Your task to perform on an android device: see creations saved in the google photos Image 0: 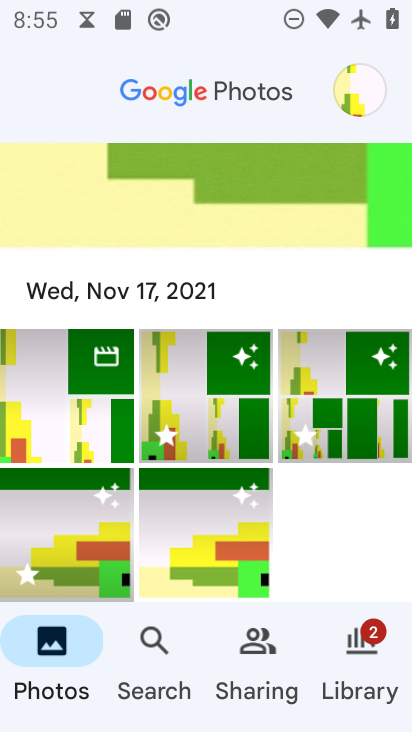
Step 0: press home button
Your task to perform on an android device: see creations saved in the google photos Image 1: 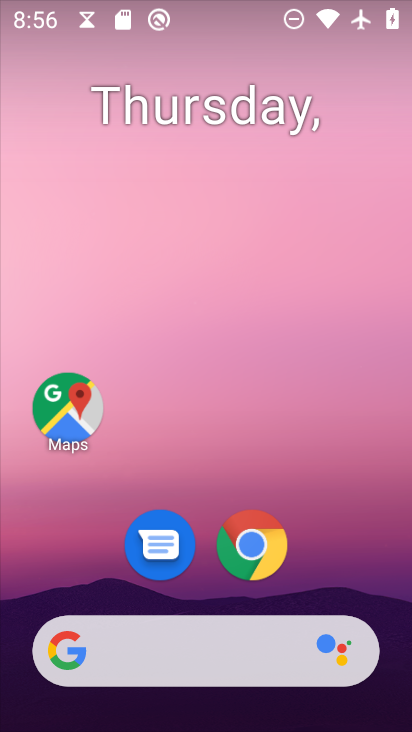
Step 1: drag from (341, 562) to (203, 95)
Your task to perform on an android device: see creations saved in the google photos Image 2: 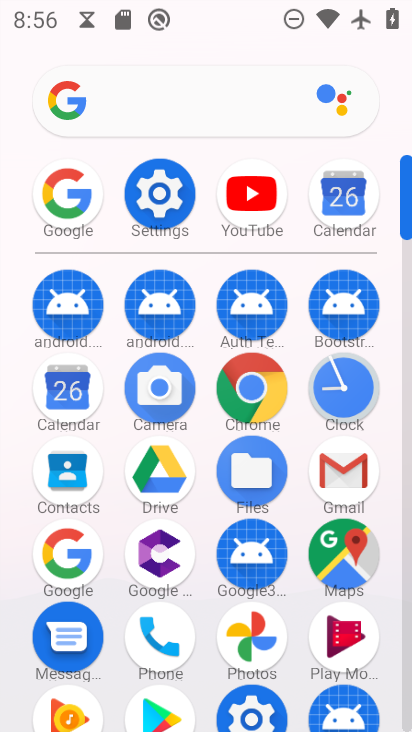
Step 2: drag from (201, 611) to (191, 399)
Your task to perform on an android device: see creations saved in the google photos Image 3: 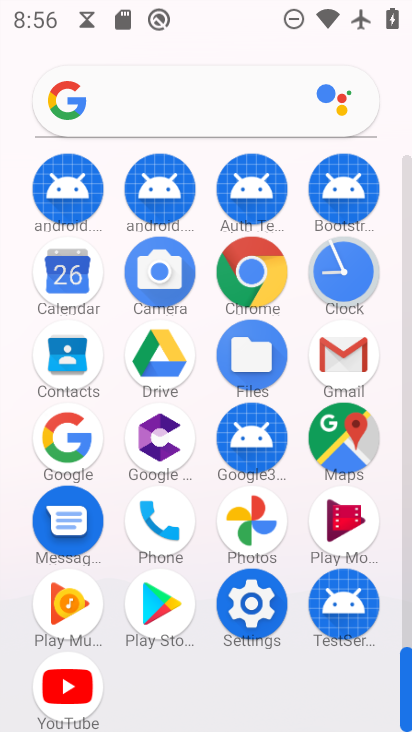
Step 3: click (252, 520)
Your task to perform on an android device: see creations saved in the google photos Image 4: 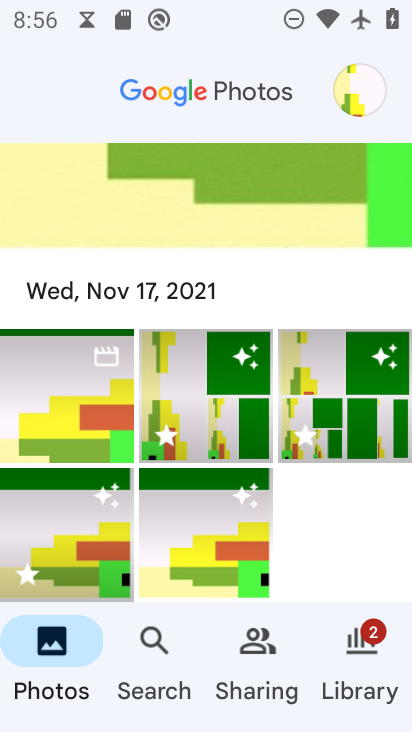
Step 4: click (364, 644)
Your task to perform on an android device: see creations saved in the google photos Image 5: 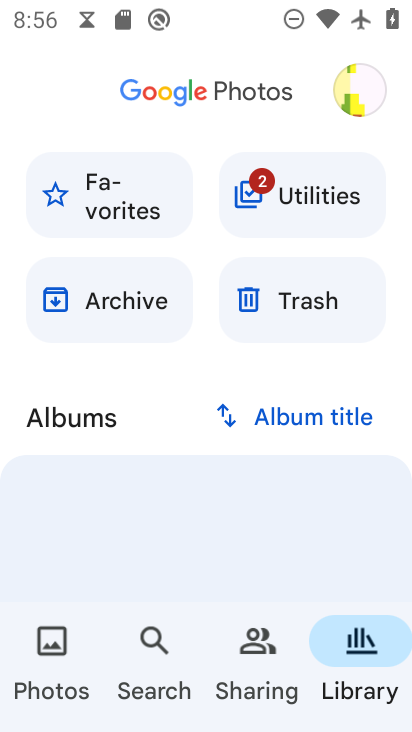
Step 5: click (300, 193)
Your task to perform on an android device: see creations saved in the google photos Image 6: 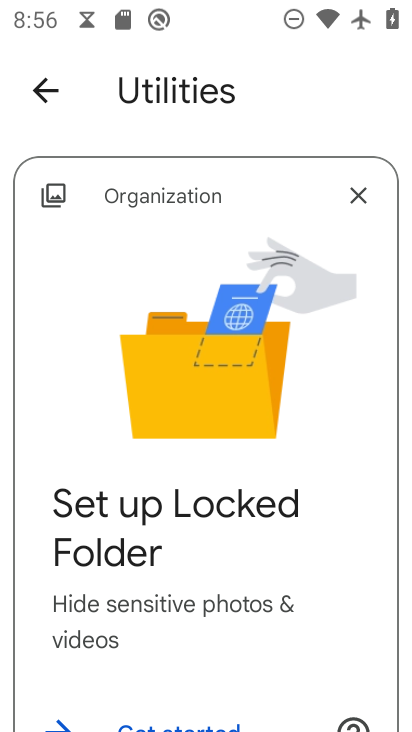
Step 6: drag from (243, 535) to (249, 369)
Your task to perform on an android device: see creations saved in the google photos Image 7: 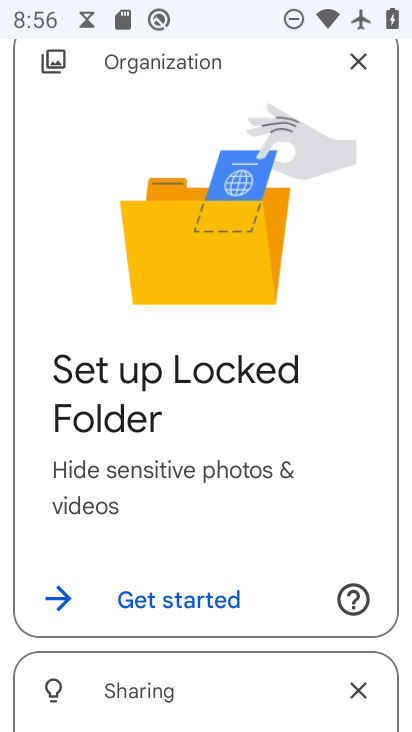
Step 7: drag from (225, 677) to (256, 546)
Your task to perform on an android device: see creations saved in the google photos Image 8: 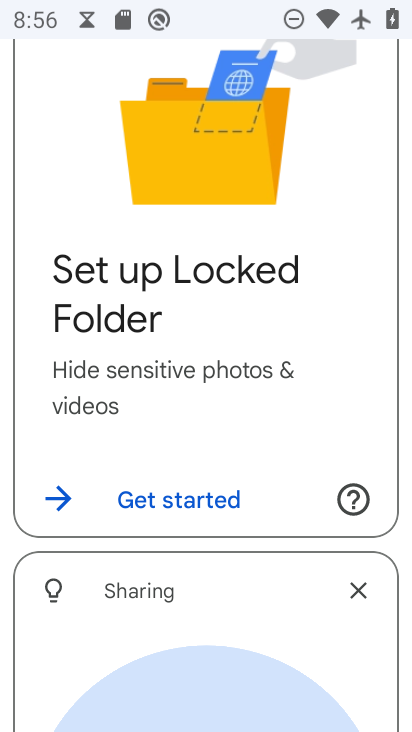
Step 8: drag from (188, 685) to (240, 527)
Your task to perform on an android device: see creations saved in the google photos Image 9: 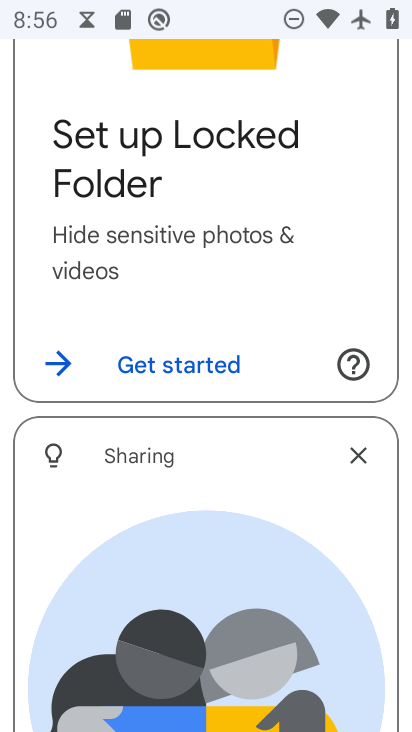
Step 9: drag from (200, 658) to (251, 501)
Your task to perform on an android device: see creations saved in the google photos Image 10: 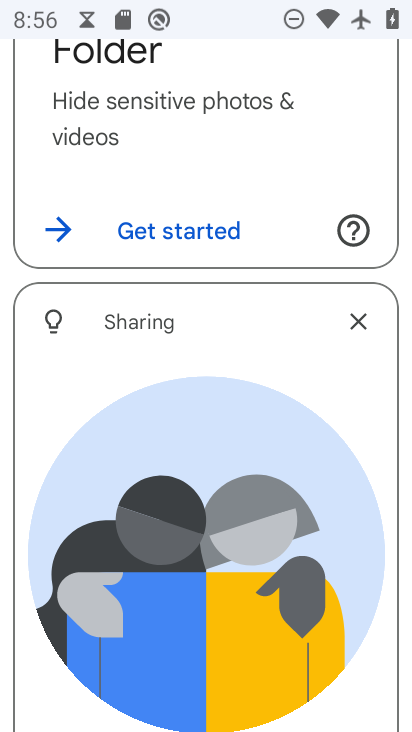
Step 10: drag from (195, 681) to (272, 519)
Your task to perform on an android device: see creations saved in the google photos Image 11: 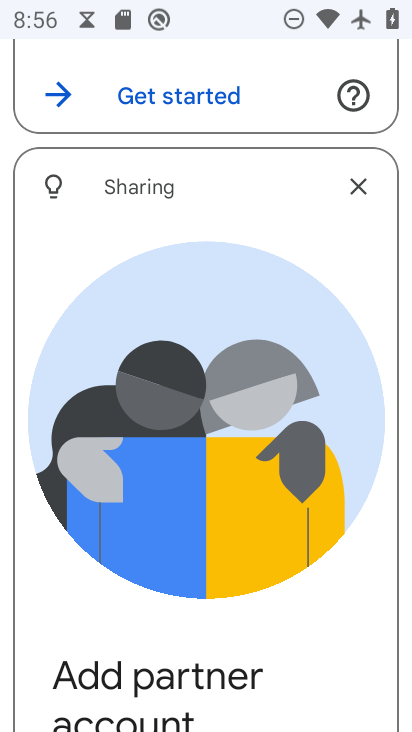
Step 11: drag from (240, 659) to (286, 508)
Your task to perform on an android device: see creations saved in the google photos Image 12: 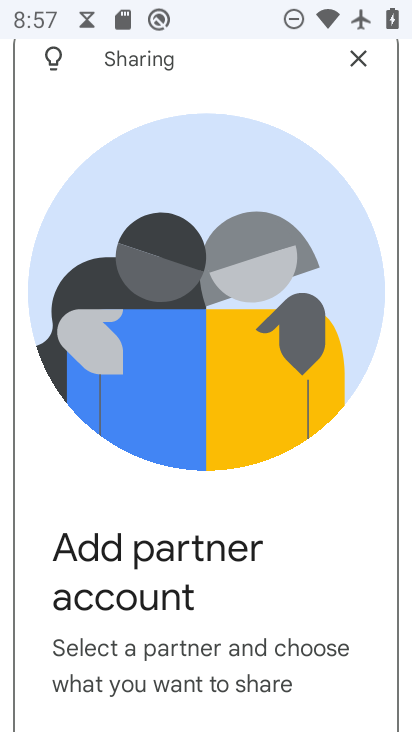
Step 12: drag from (210, 620) to (256, 467)
Your task to perform on an android device: see creations saved in the google photos Image 13: 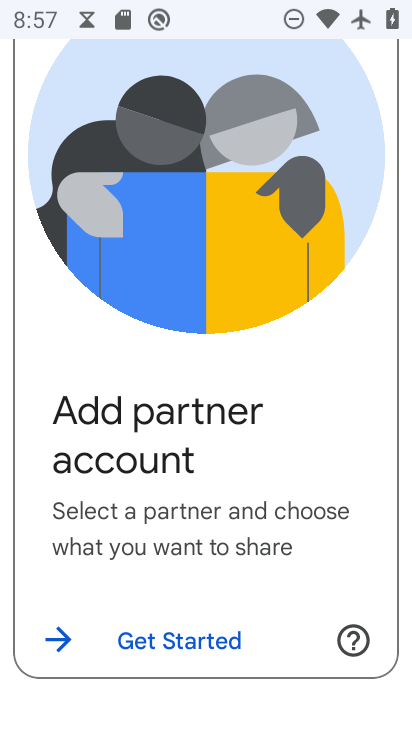
Step 13: drag from (186, 578) to (235, 410)
Your task to perform on an android device: see creations saved in the google photos Image 14: 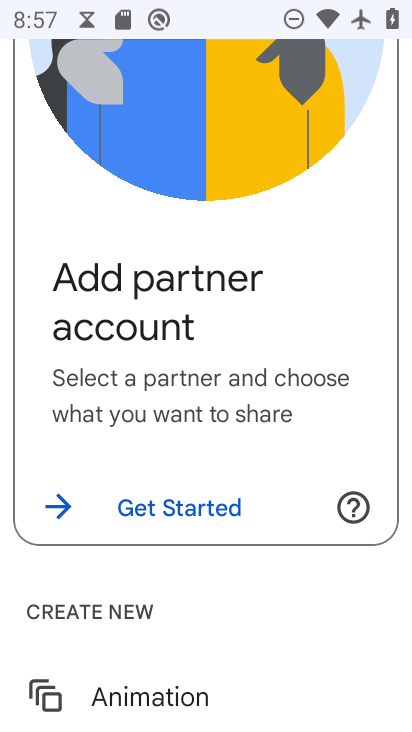
Step 14: drag from (201, 627) to (277, 495)
Your task to perform on an android device: see creations saved in the google photos Image 15: 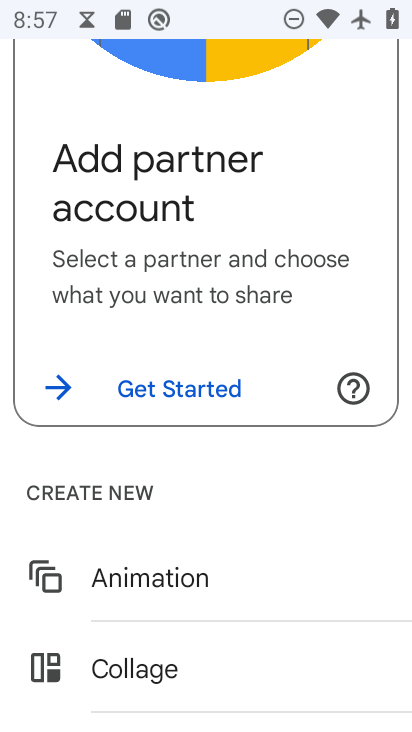
Step 15: drag from (178, 640) to (259, 541)
Your task to perform on an android device: see creations saved in the google photos Image 16: 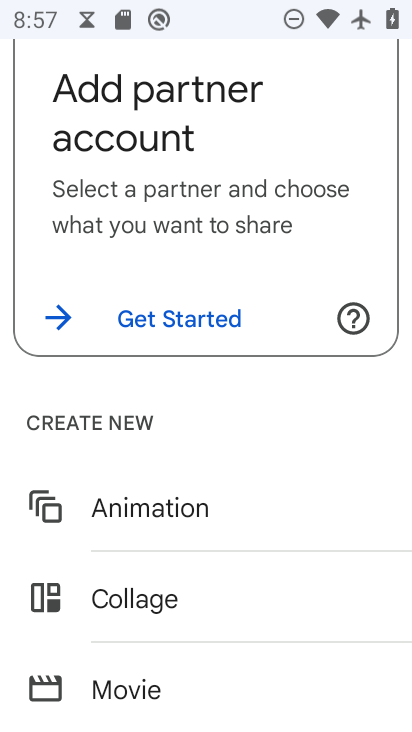
Step 16: drag from (119, 652) to (222, 540)
Your task to perform on an android device: see creations saved in the google photos Image 17: 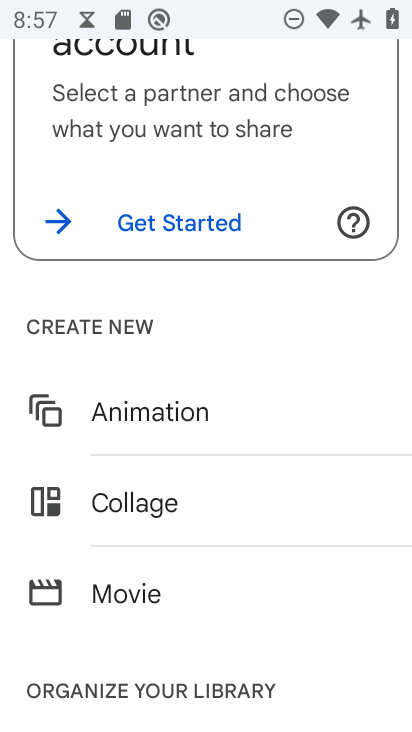
Step 17: drag from (154, 631) to (185, 499)
Your task to perform on an android device: see creations saved in the google photos Image 18: 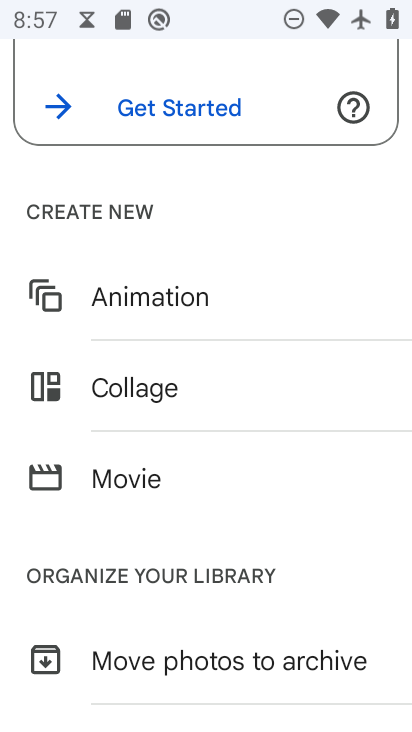
Step 18: drag from (136, 626) to (155, 500)
Your task to perform on an android device: see creations saved in the google photos Image 19: 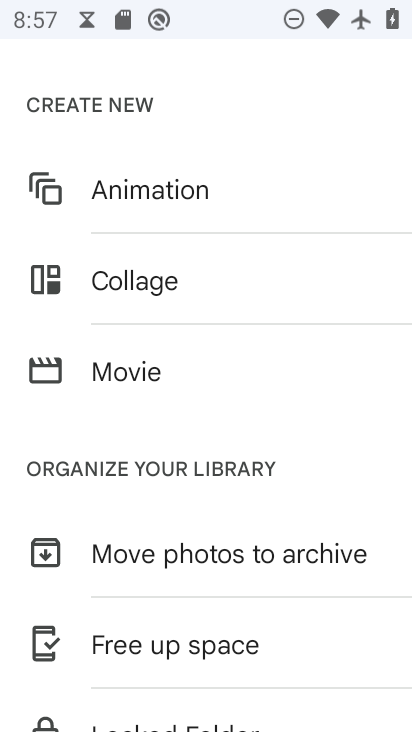
Step 19: drag from (143, 616) to (136, 505)
Your task to perform on an android device: see creations saved in the google photos Image 20: 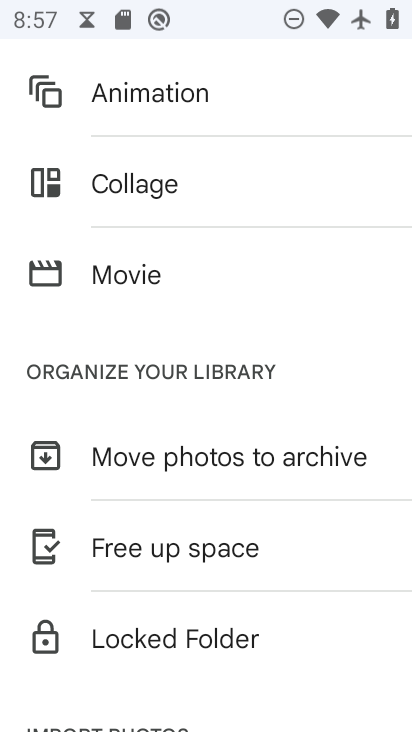
Step 20: drag from (133, 596) to (163, 460)
Your task to perform on an android device: see creations saved in the google photos Image 21: 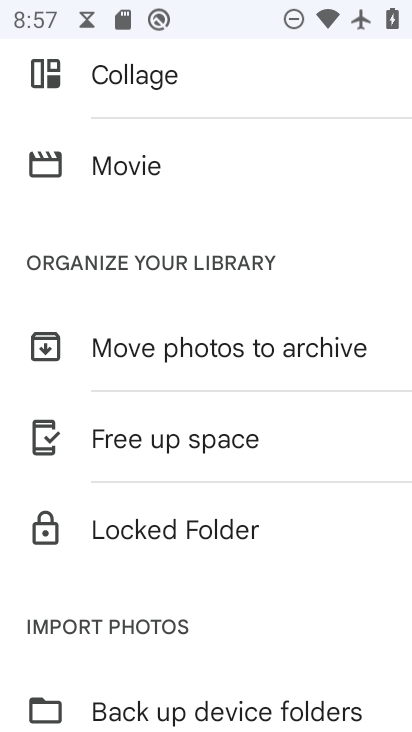
Step 21: drag from (131, 567) to (149, 475)
Your task to perform on an android device: see creations saved in the google photos Image 22: 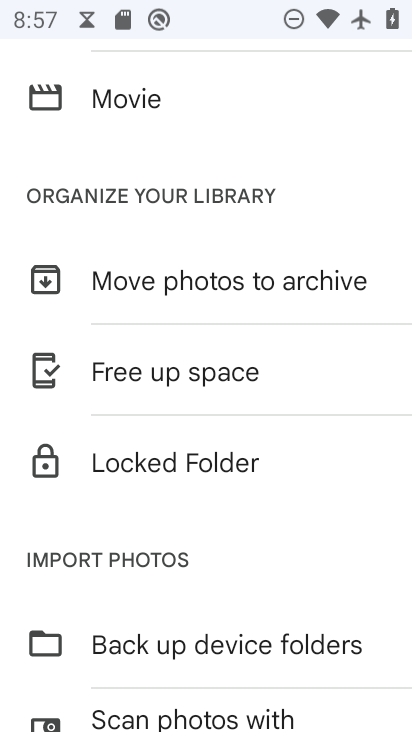
Step 22: drag from (114, 609) to (110, 481)
Your task to perform on an android device: see creations saved in the google photos Image 23: 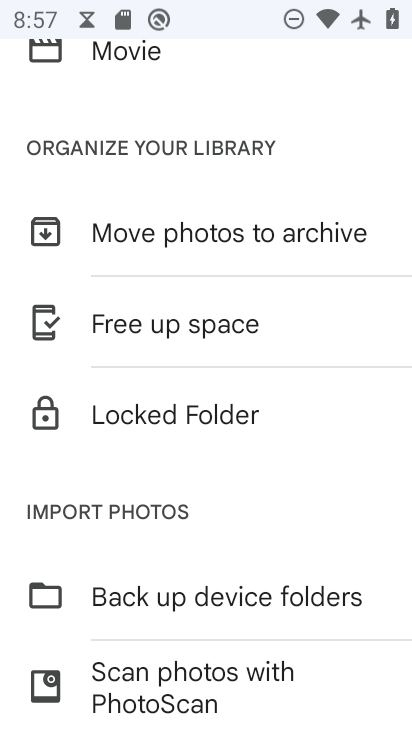
Step 23: drag from (146, 637) to (189, 416)
Your task to perform on an android device: see creations saved in the google photos Image 24: 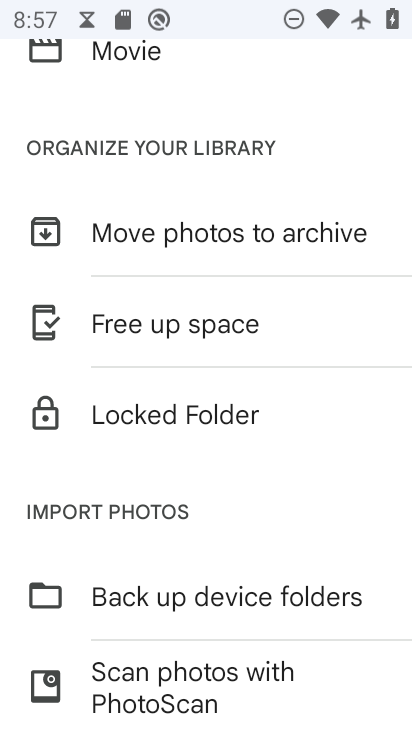
Step 24: press back button
Your task to perform on an android device: see creations saved in the google photos Image 25: 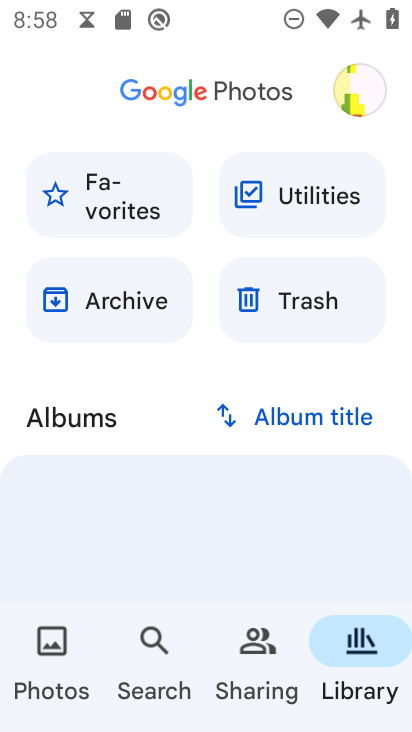
Step 25: click (156, 204)
Your task to perform on an android device: see creations saved in the google photos Image 26: 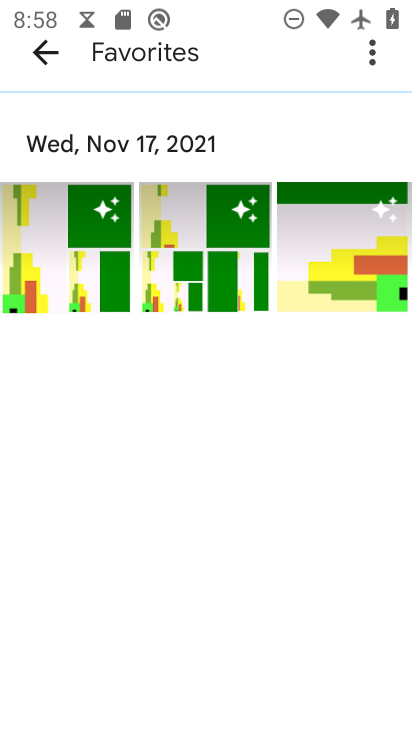
Step 26: press back button
Your task to perform on an android device: see creations saved in the google photos Image 27: 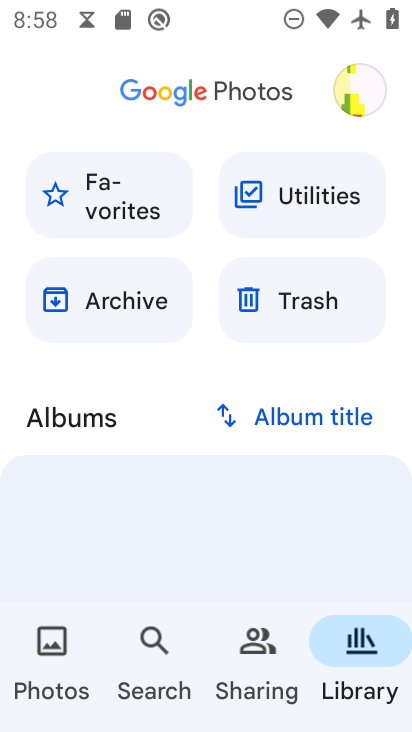
Step 27: click (150, 307)
Your task to perform on an android device: see creations saved in the google photos Image 28: 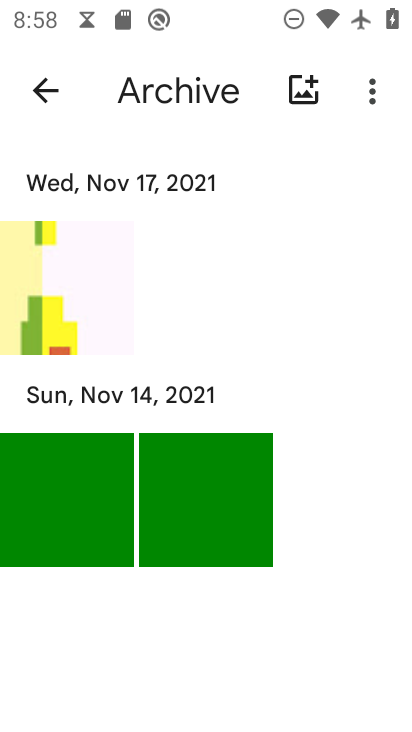
Step 28: drag from (161, 593) to (249, 293)
Your task to perform on an android device: see creations saved in the google photos Image 29: 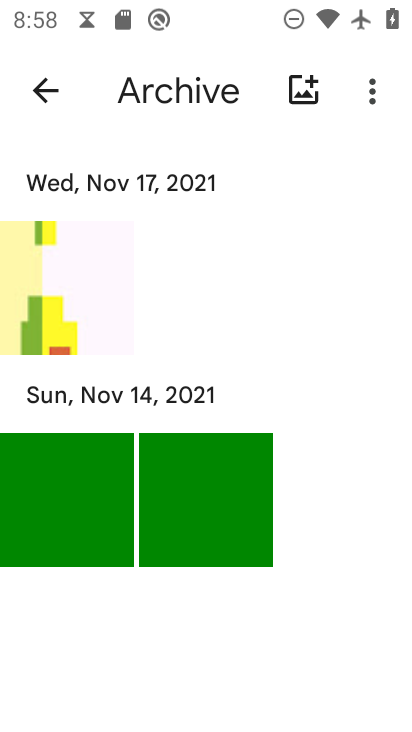
Step 29: click (59, 94)
Your task to perform on an android device: see creations saved in the google photos Image 30: 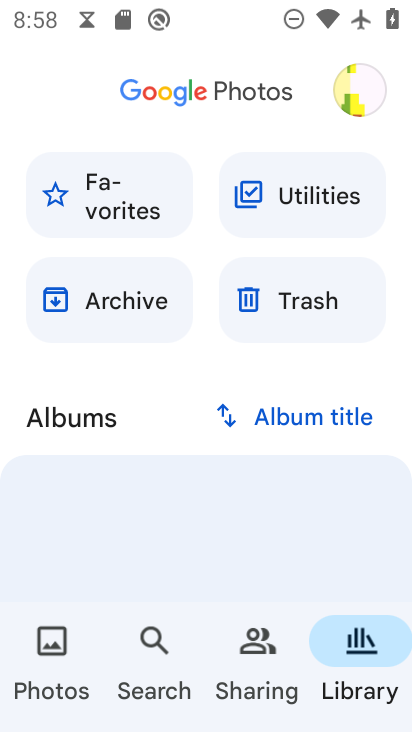
Step 30: click (370, 109)
Your task to perform on an android device: see creations saved in the google photos Image 31: 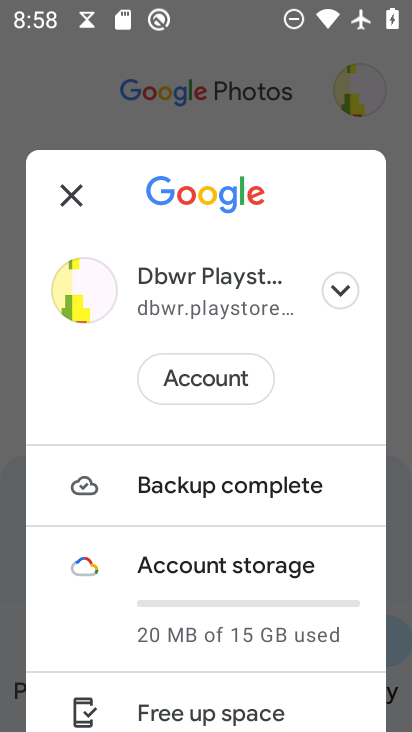
Step 31: drag from (262, 550) to (311, 386)
Your task to perform on an android device: see creations saved in the google photos Image 32: 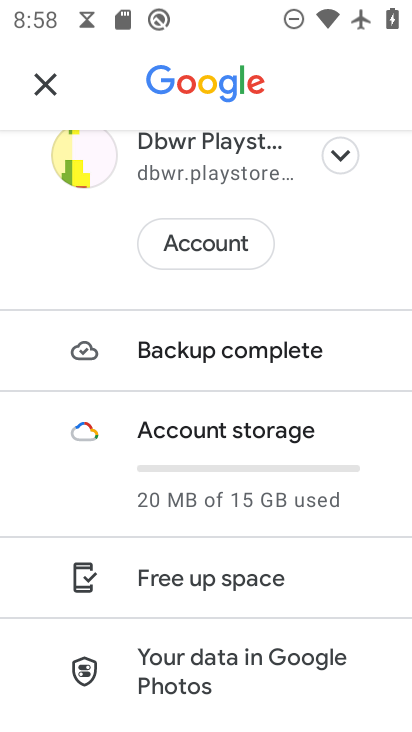
Step 32: drag from (262, 640) to (303, 454)
Your task to perform on an android device: see creations saved in the google photos Image 33: 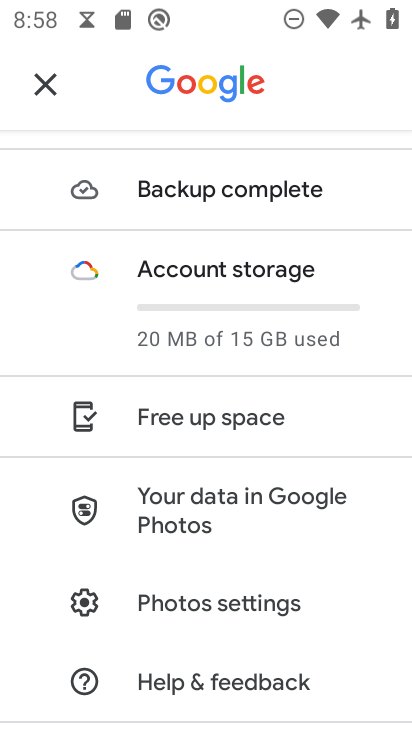
Step 33: click (258, 610)
Your task to perform on an android device: see creations saved in the google photos Image 34: 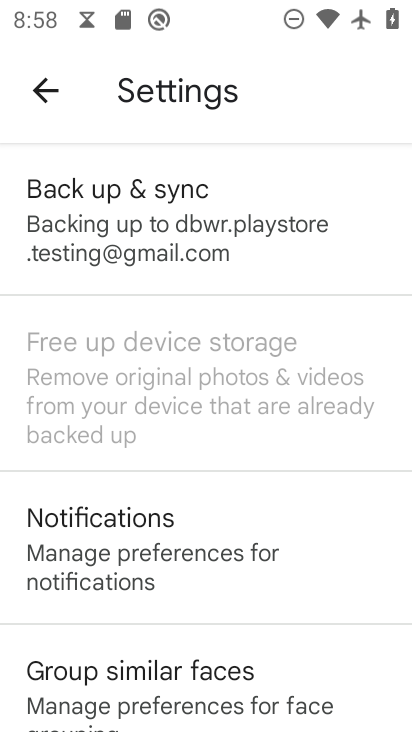
Step 34: task complete